Your task to perform on an android device: Open privacy settings Image 0: 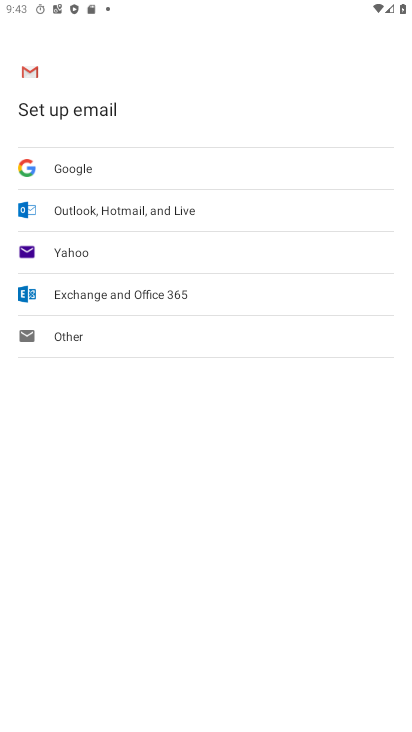
Step 0: press home button
Your task to perform on an android device: Open privacy settings Image 1: 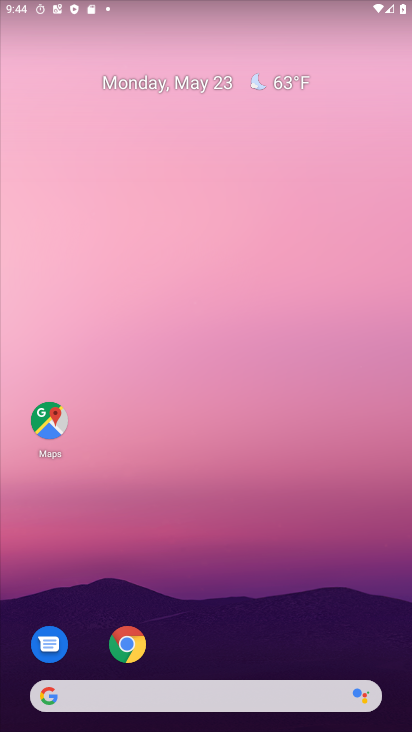
Step 1: drag from (221, 611) to (221, 51)
Your task to perform on an android device: Open privacy settings Image 2: 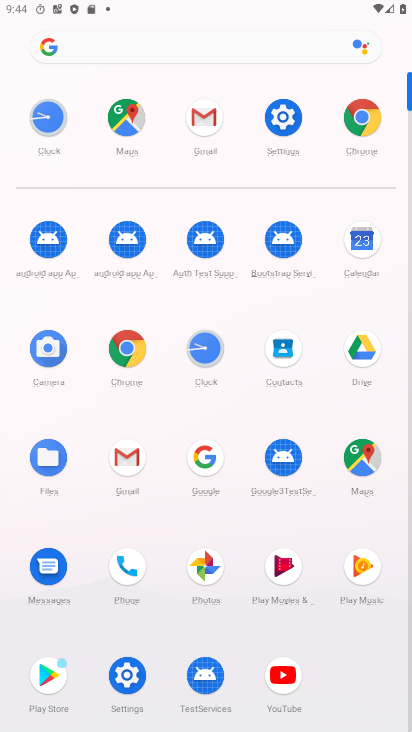
Step 2: click (275, 112)
Your task to perform on an android device: Open privacy settings Image 3: 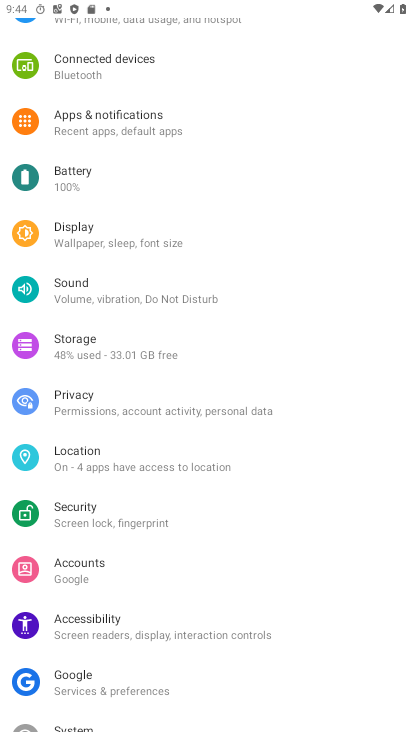
Step 3: click (113, 399)
Your task to perform on an android device: Open privacy settings Image 4: 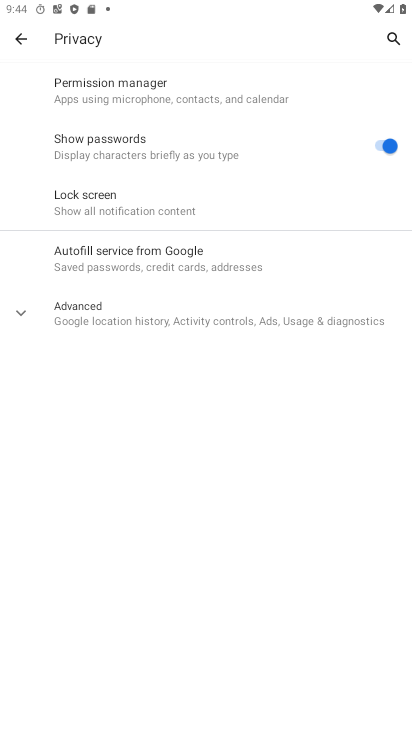
Step 4: click (68, 310)
Your task to perform on an android device: Open privacy settings Image 5: 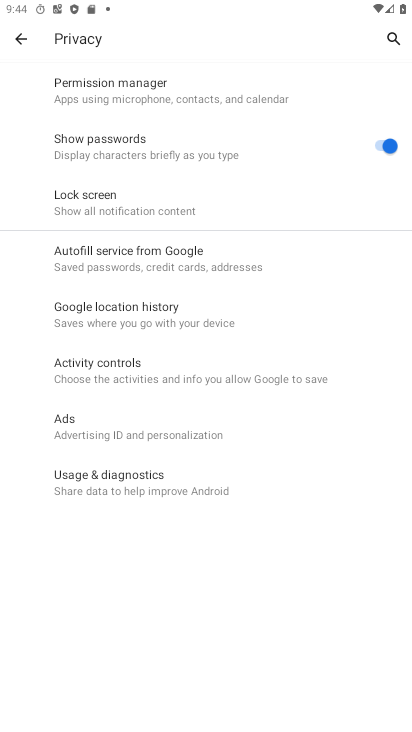
Step 5: task complete